Your task to perform on an android device: toggle notifications settings in the gmail app Image 0: 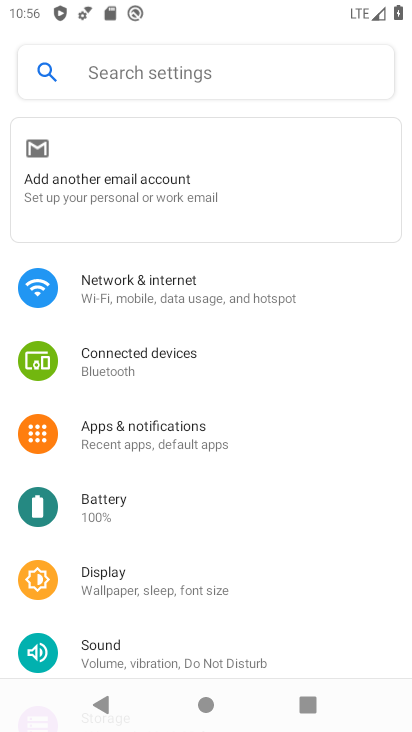
Step 0: press home button
Your task to perform on an android device: toggle notifications settings in the gmail app Image 1: 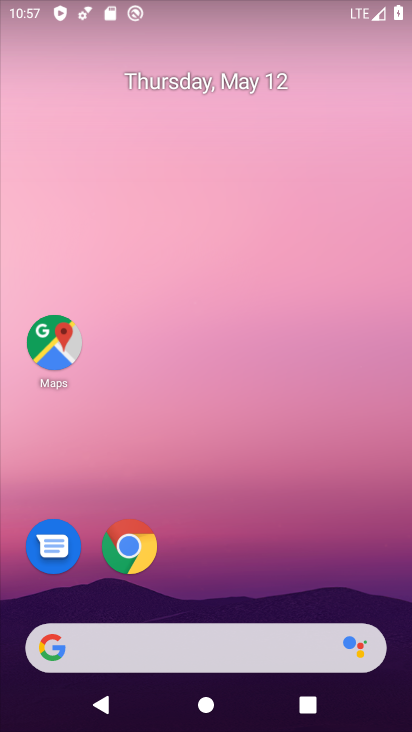
Step 1: drag from (222, 726) to (229, 87)
Your task to perform on an android device: toggle notifications settings in the gmail app Image 2: 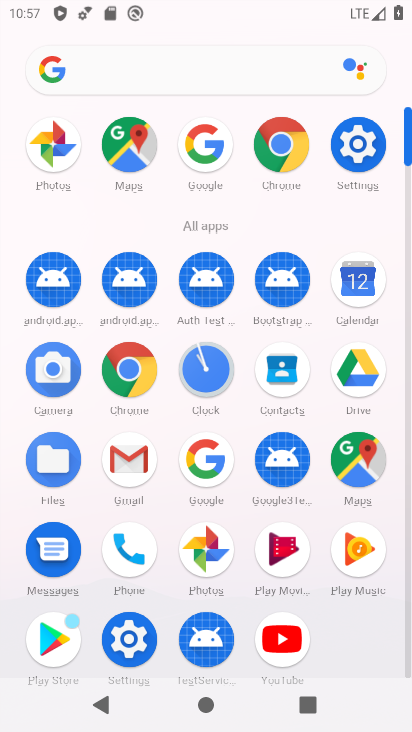
Step 2: click (132, 460)
Your task to perform on an android device: toggle notifications settings in the gmail app Image 3: 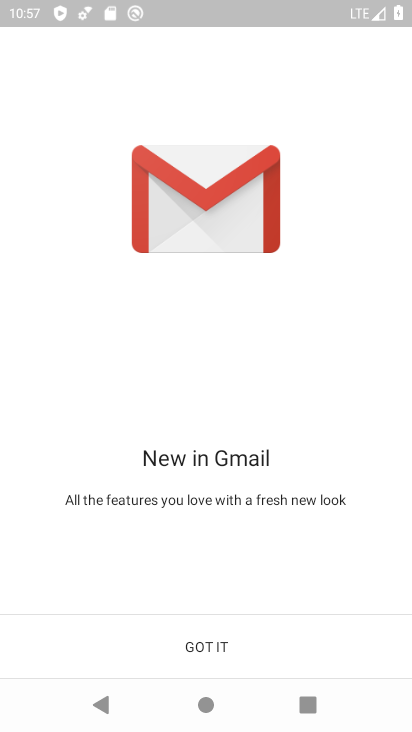
Step 3: click (198, 647)
Your task to perform on an android device: toggle notifications settings in the gmail app Image 4: 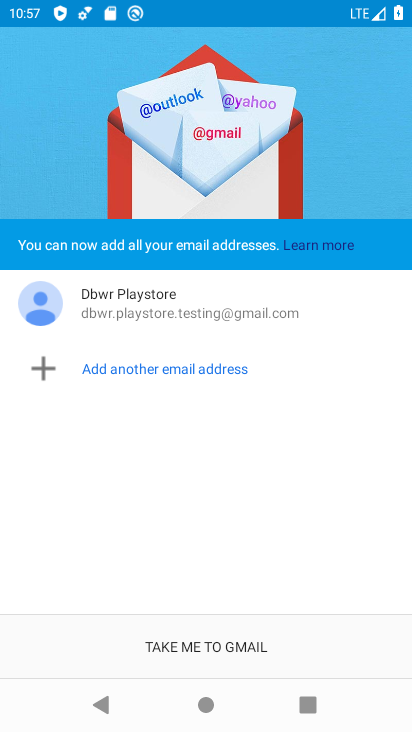
Step 4: click (198, 647)
Your task to perform on an android device: toggle notifications settings in the gmail app Image 5: 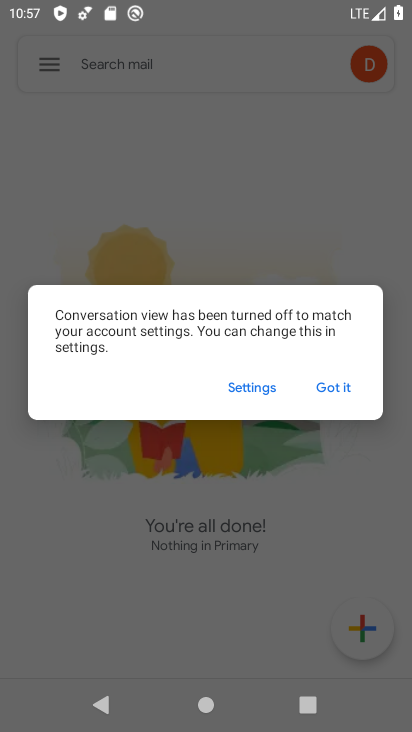
Step 5: click (339, 388)
Your task to perform on an android device: toggle notifications settings in the gmail app Image 6: 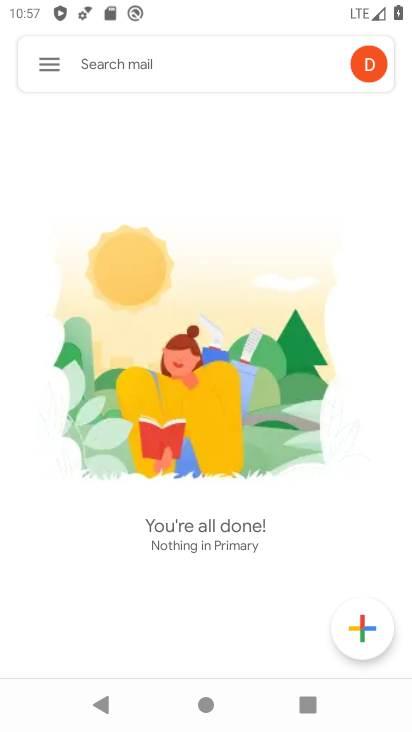
Step 6: click (48, 65)
Your task to perform on an android device: toggle notifications settings in the gmail app Image 7: 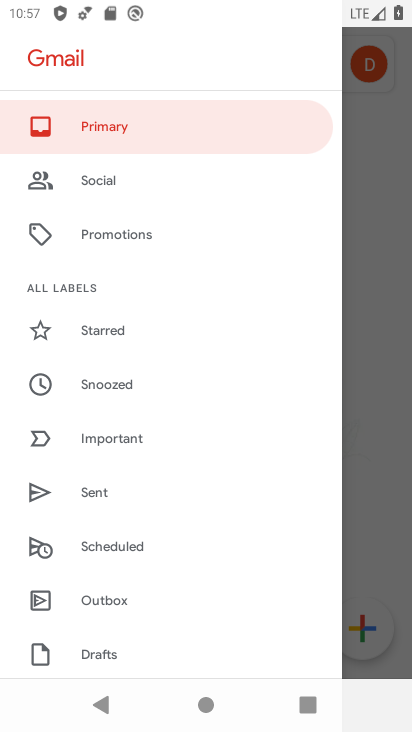
Step 7: drag from (156, 622) to (191, 240)
Your task to perform on an android device: toggle notifications settings in the gmail app Image 8: 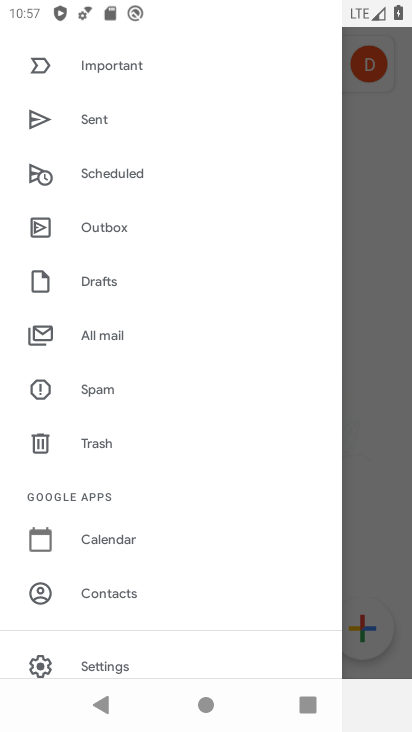
Step 8: drag from (141, 660) to (147, 307)
Your task to perform on an android device: toggle notifications settings in the gmail app Image 9: 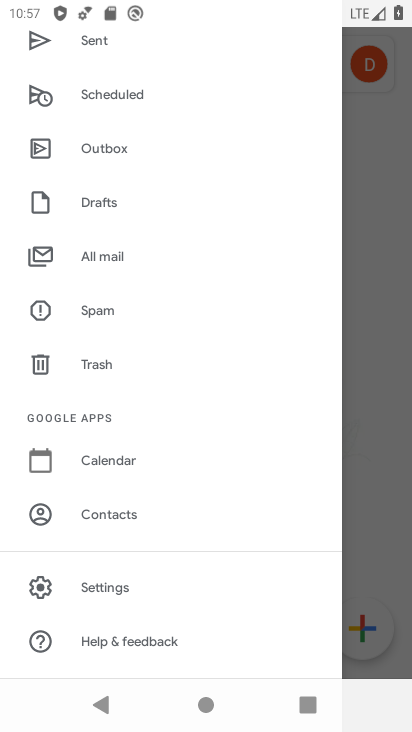
Step 9: click (111, 588)
Your task to perform on an android device: toggle notifications settings in the gmail app Image 10: 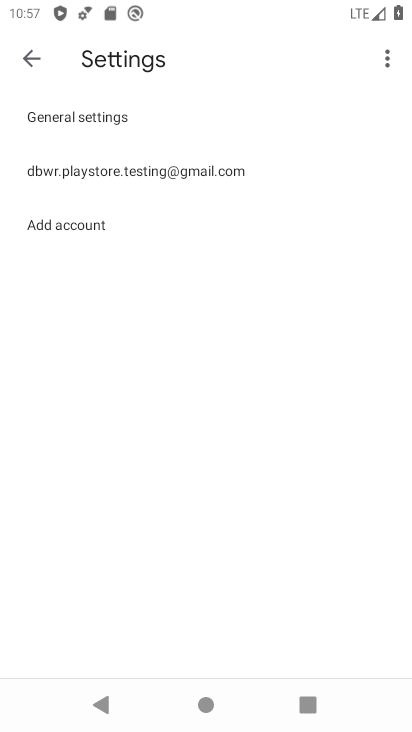
Step 10: click (130, 167)
Your task to perform on an android device: toggle notifications settings in the gmail app Image 11: 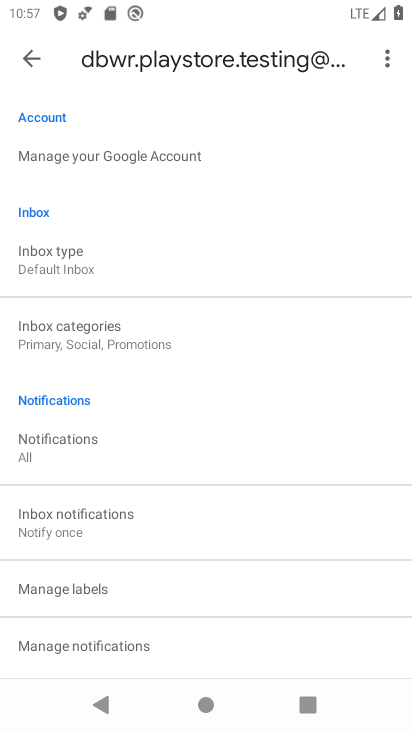
Step 11: click (54, 440)
Your task to perform on an android device: toggle notifications settings in the gmail app Image 12: 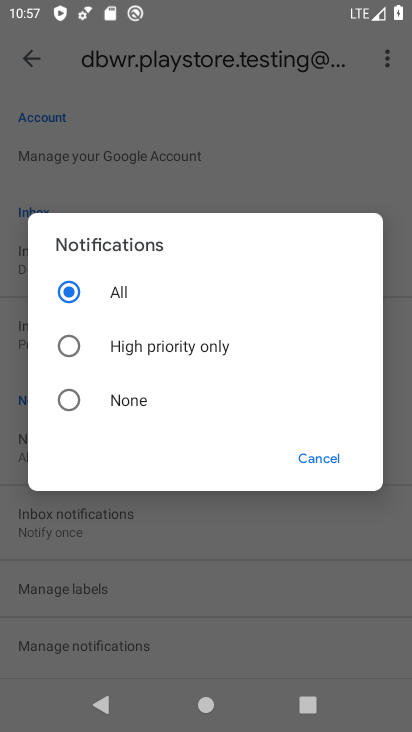
Step 12: click (63, 391)
Your task to perform on an android device: toggle notifications settings in the gmail app Image 13: 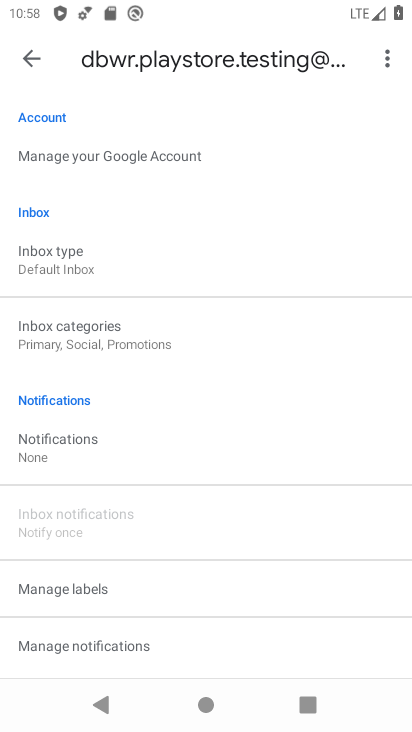
Step 13: task complete